Your task to perform on an android device: Open the phone app and click the voicemail tab. Image 0: 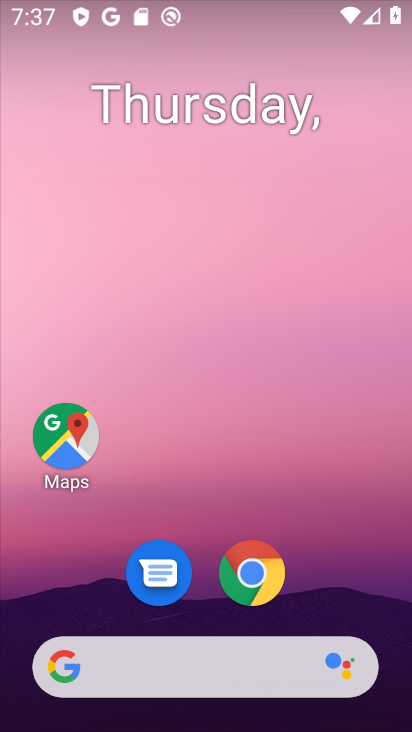
Step 0: drag from (332, 601) to (335, 278)
Your task to perform on an android device: Open the phone app and click the voicemail tab. Image 1: 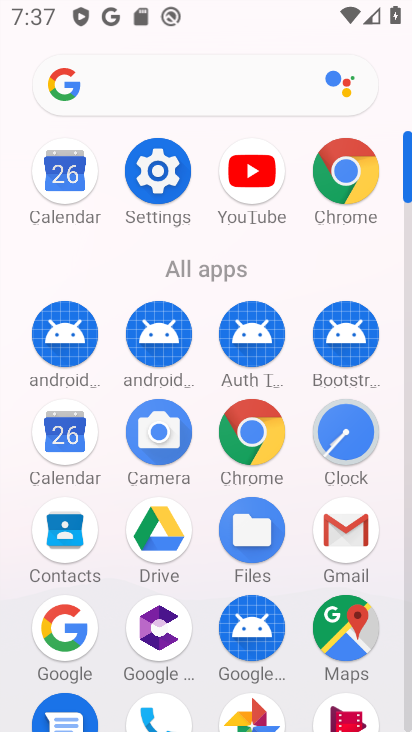
Step 1: drag from (297, 664) to (303, 310)
Your task to perform on an android device: Open the phone app and click the voicemail tab. Image 2: 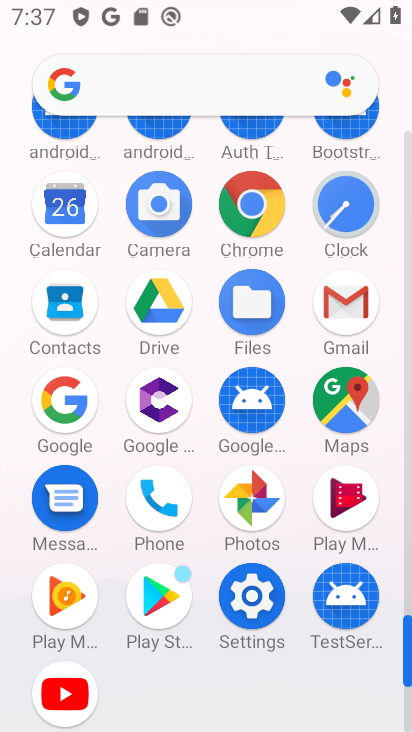
Step 2: click (154, 538)
Your task to perform on an android device: Open the phone app and click the voicemail tab. Image 3: 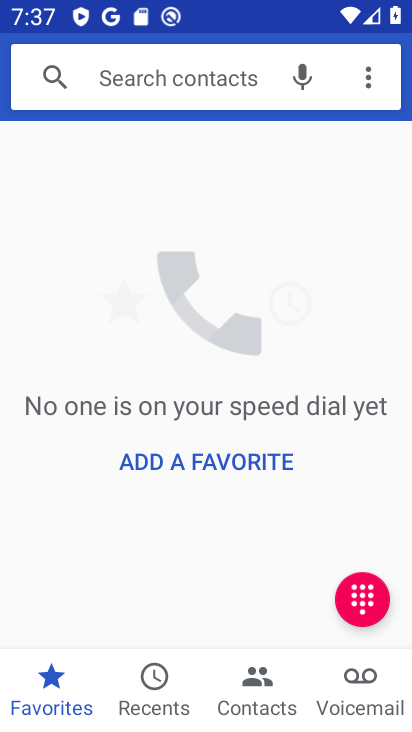
Step 3: click (358, 683)
Your task to perform on an android device: Open the phone app and click the voicemail tab. Image 4: 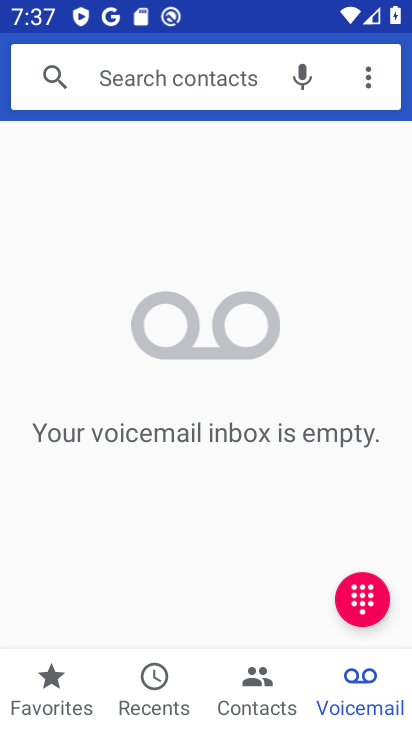
Step 4: task complete